Your task to perform on an android device: Open settings Image 0: 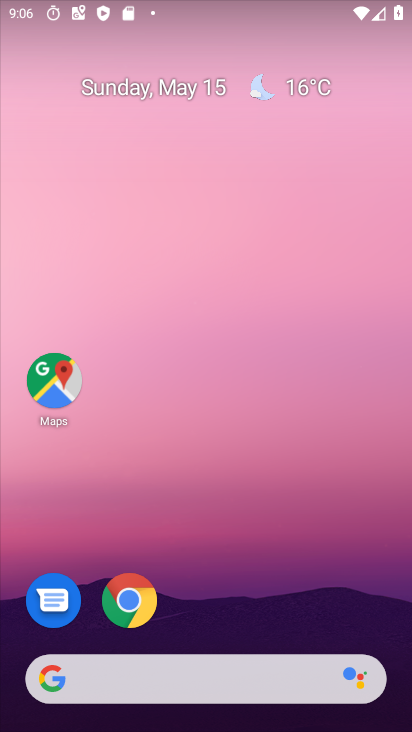
Step 0: drag from (264, 607) to (245, 164)
Your task to perform on an android device: Open settings Image 1: 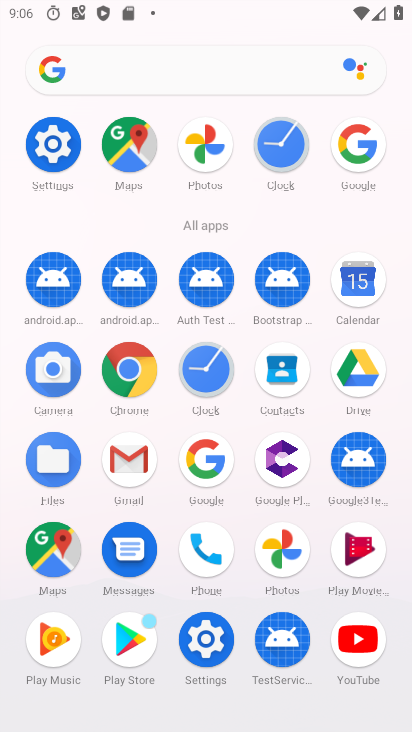
Step 1: click (57, 142)
Your task to perform on an android device: Open settings Image 2: 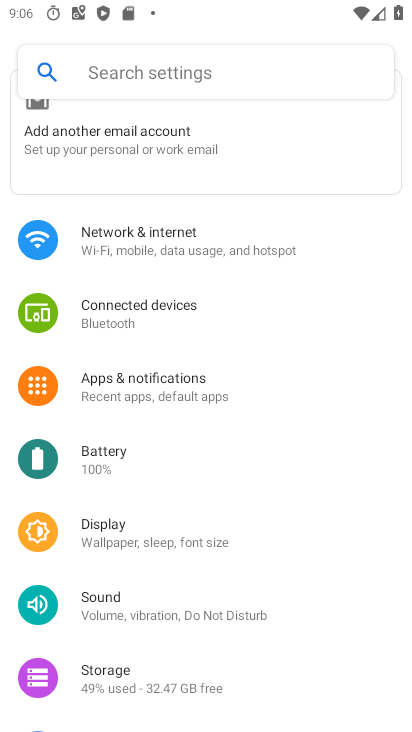
Step 2: task complete